Your task to perform on an android device: see creations saved in the google photos Image 0: 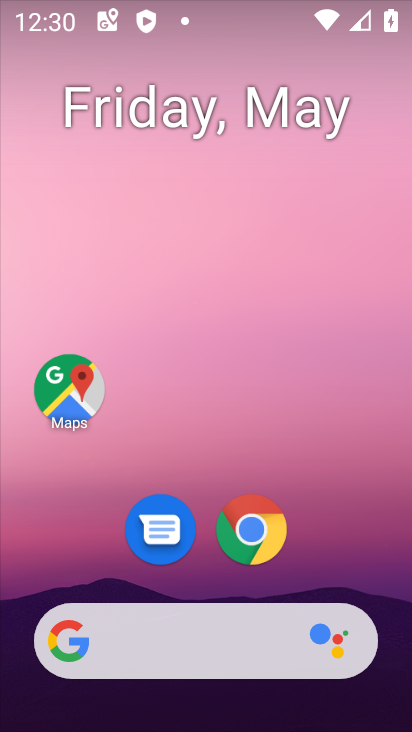
Step 0: drag from (356, 536) to (321, 86)
Your task to perform on an android device: see creations saved in the google photos Image 1: 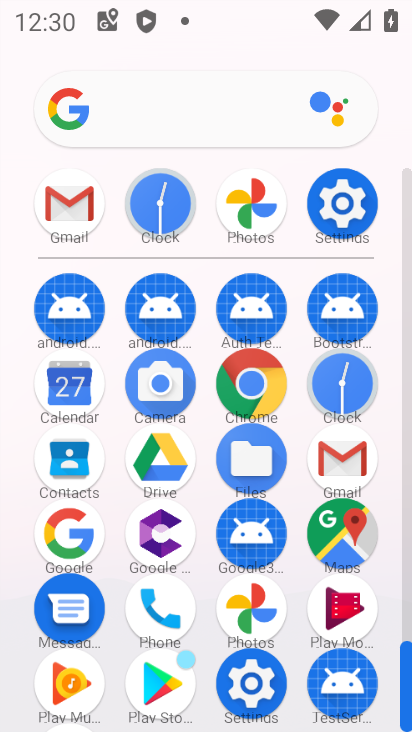
Step 1: click (259, 218)
Your task to perform on an android device: see creations saved in the google photos Image 2: 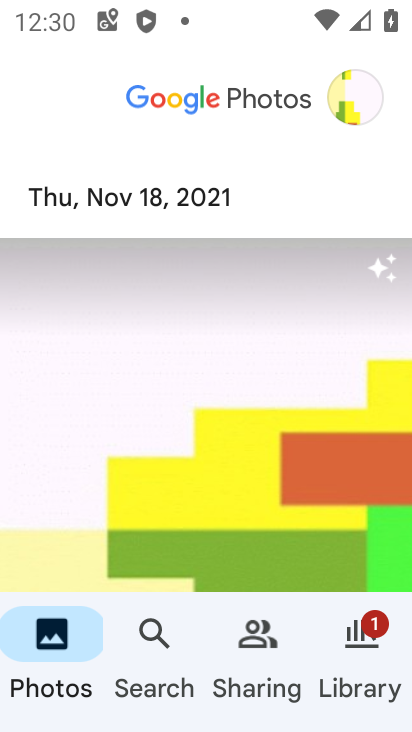
Step 2: click (333, 636)
Your task to perform on an android device: see creations saved in the google photos Image 3: 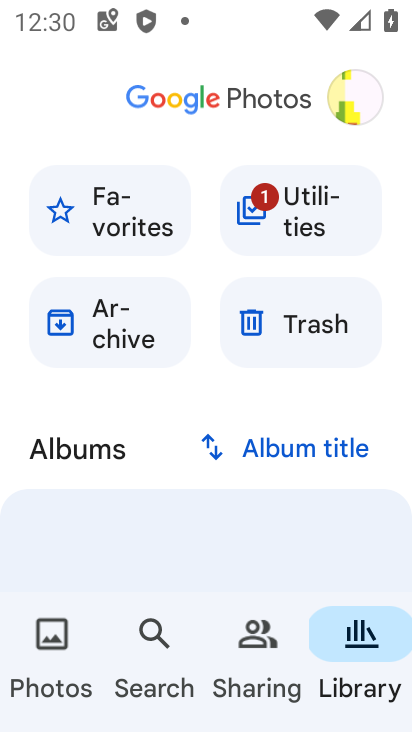
Step 3: click (132, 336)
Your task to perform on an android device: see creations saved in the google photos Image 4: 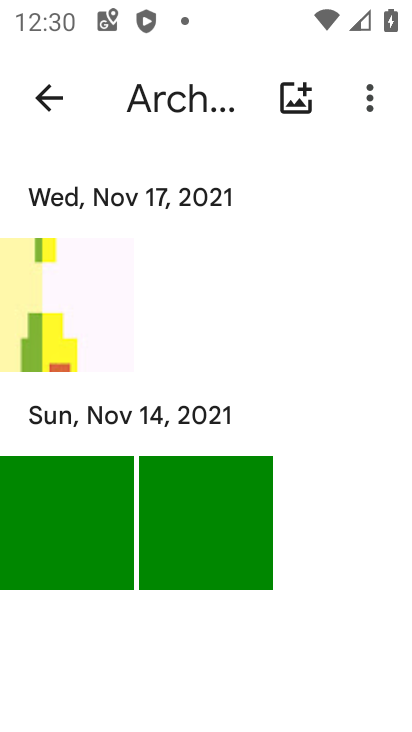
Step 4: task complete